Your task to perform on an android device: create a new album in the google photos Image 0: 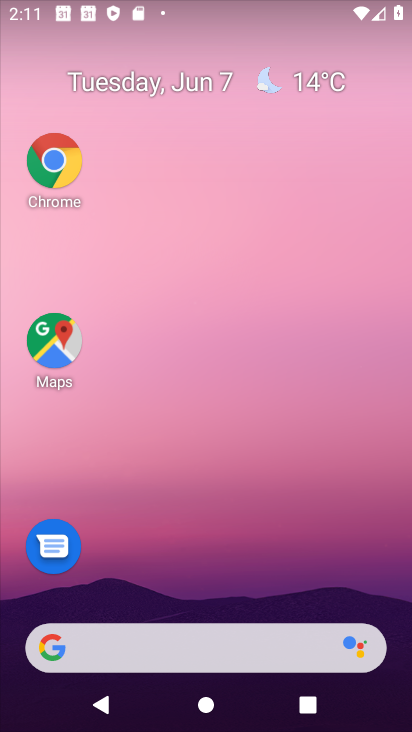
Step 0: drag from (123, 607) to (216, 140)
Your task to perform on an android device: create a new album in the google photos Image 1: 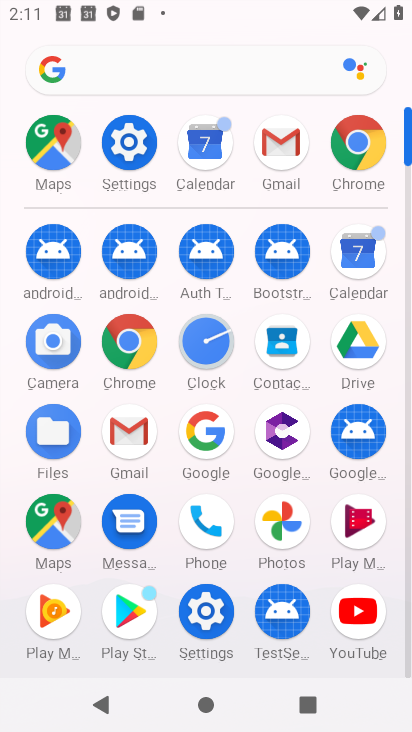
Step 1: click (287, 500)
Your task to perform on an android device: create a new album in the google photos Image 2: 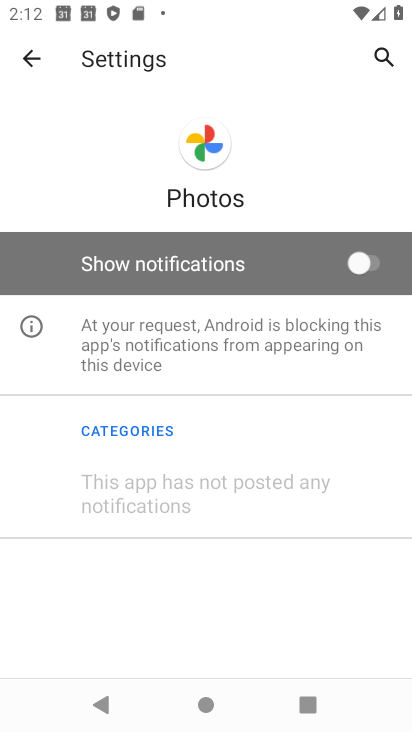
Step 2: click (30, 51)
Your task to perform on an android device: create a new album in the google photos Image 3: 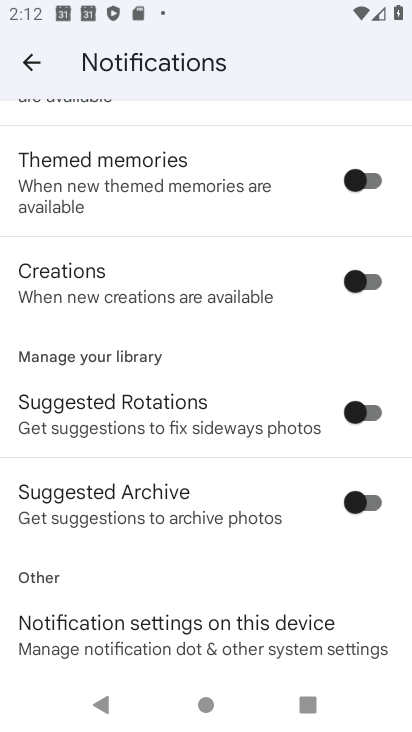
Step 3: click (32, 56)
Your task to perform on an android device: create a new album in the google photos Image 4: 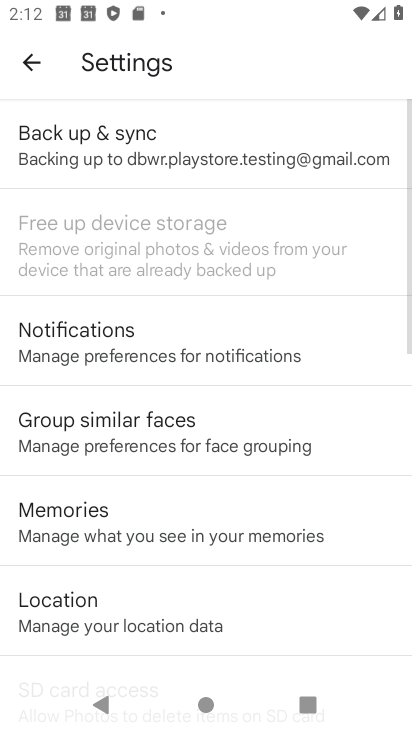
Step 4: click (17, 69)
Your task to perform on an android device: create a new album in the google photos Image 5: 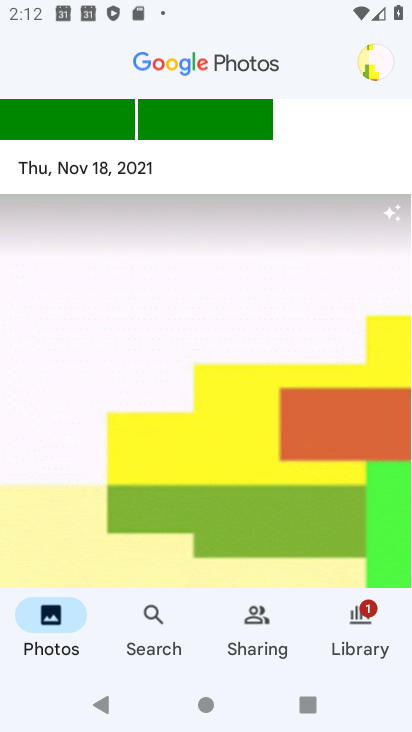
Step 5: drag from (196, 268) to (294, 675)
Your task to perform on an android device: create a new album in the google photos Image 6: 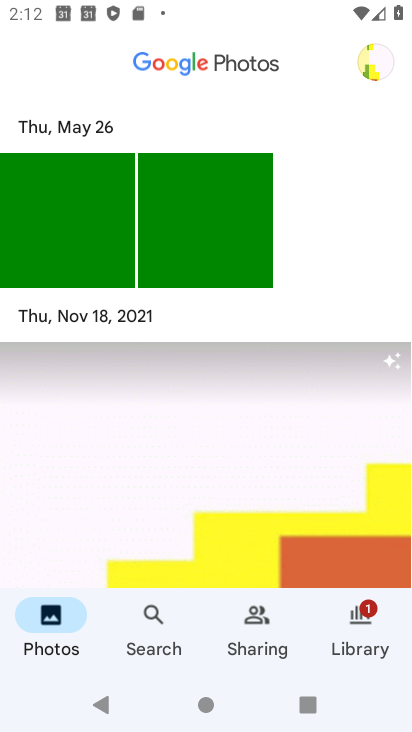
Step 6: click (146, 628)
Your task to perform on an android device: create a new album in the google photos Image 7: 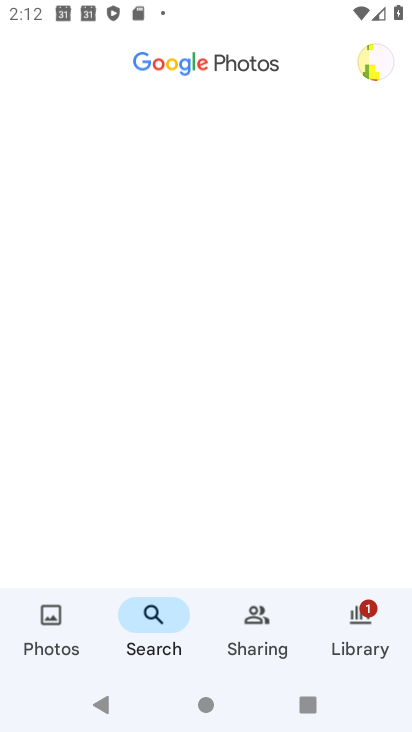
Step 7: click (361, 620)
Your task to perform on an android device: create a new album in the google photos Image 8: 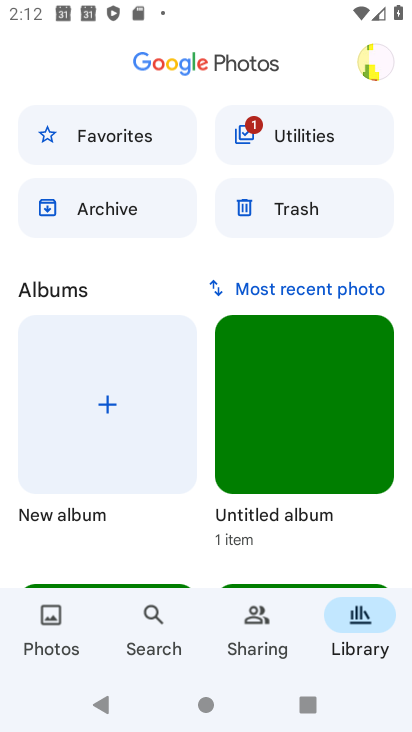
Step 8: click (92, 386)
Your task to perform on an android device: create a new album in the google photos Image 9: 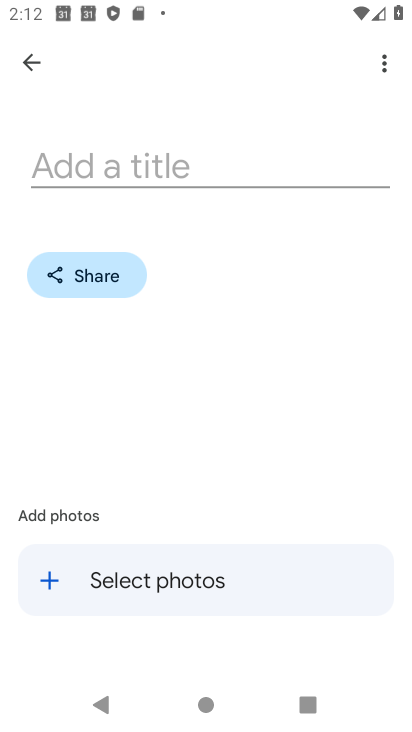
Step 9: click (188, 169)
Your task to perform on an android device: create a new album in the google photos Image 10: 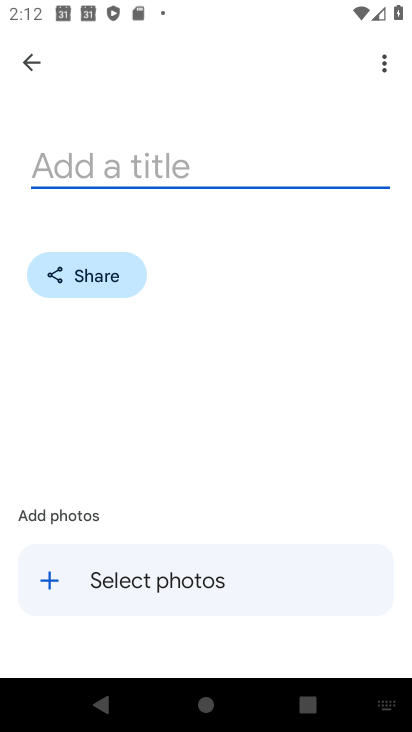
Step 10: type "maksa"
Your task to perform on an android device: create a new album in the google photos Image 11: 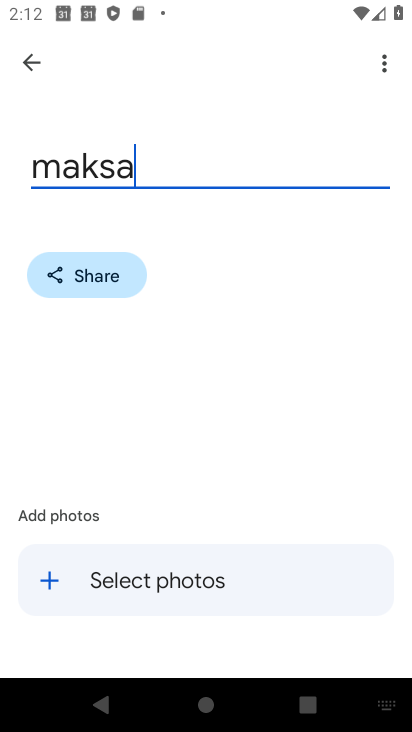
Step 11: click (42, 587)
Your task to perform on an android device: create a new album in the google photos Image 12: 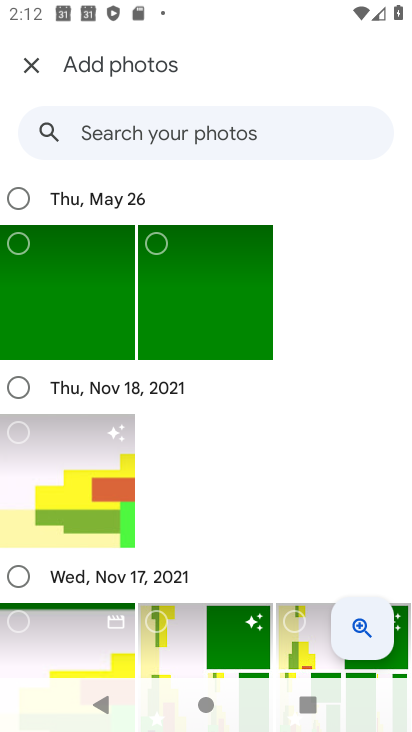
Step 12: click (191, 303)
Your task to perform on an android device: create a new album in the google photos Image 13: 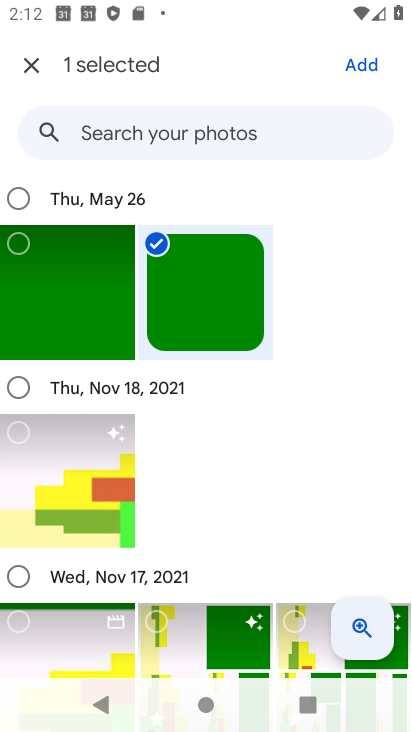
Step 13: click (53, 491)
Your task to perform on an android device: create a new album in the google photos Image 14: 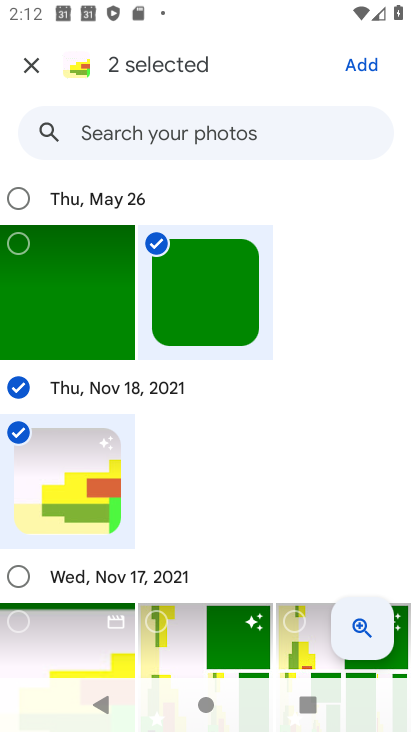
Step 14: click (368, 67)
Your task to perform on an android device: create a new album in the google photos Image 15: 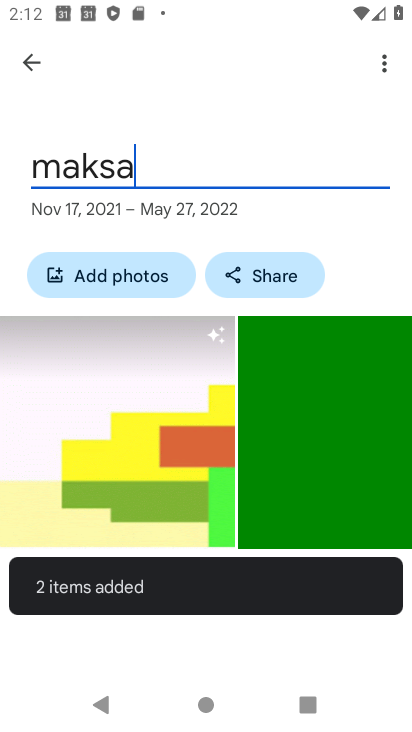
Step 15: task complete